Your task to perform on an android device: turn off notifications in google photos Image 0: 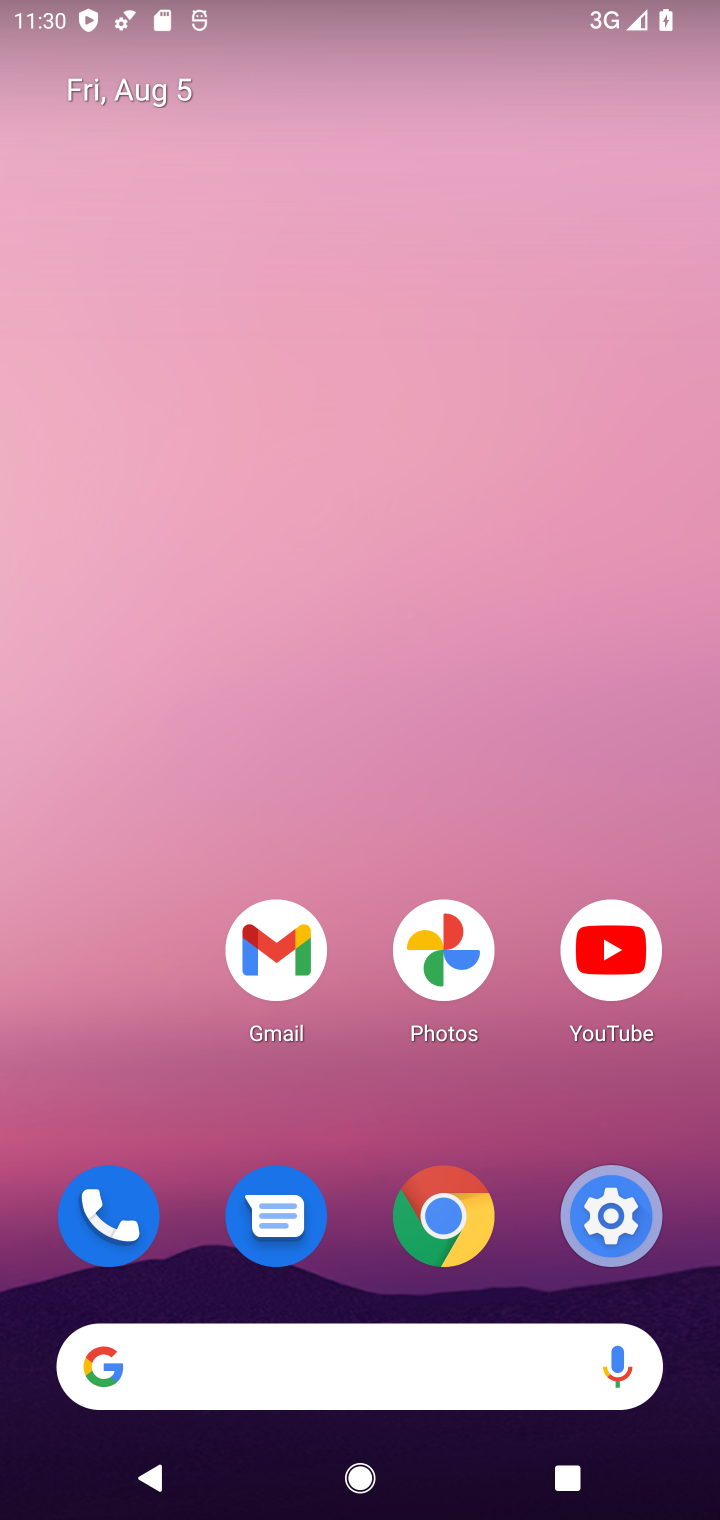
Step 0: drag from (508, 1388) to (483, 289)
Your task to perform on an android device: turn off notifications in google photos Image 1: 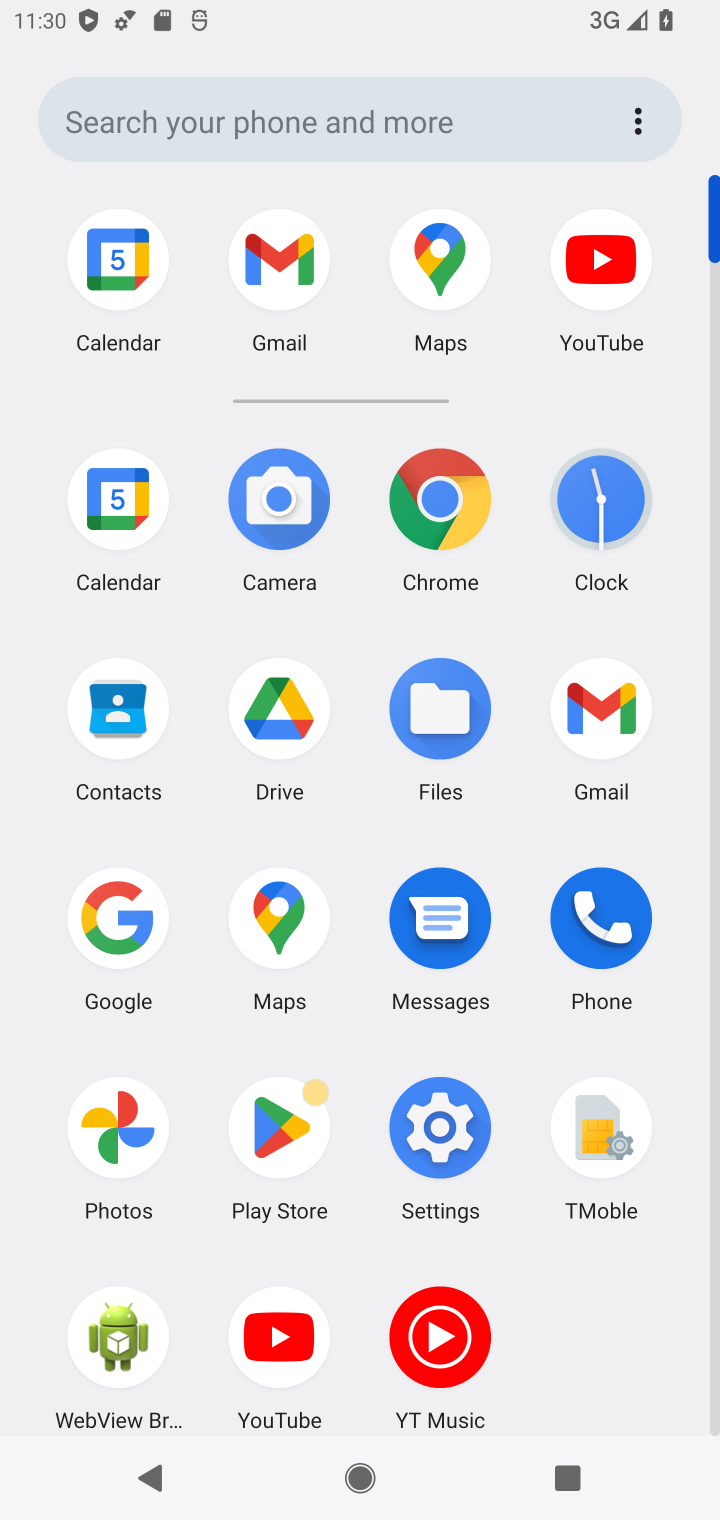
Step 1: click (107, 1127)
Your task to perform on an android device: turn off notifications in google photos Image 2: 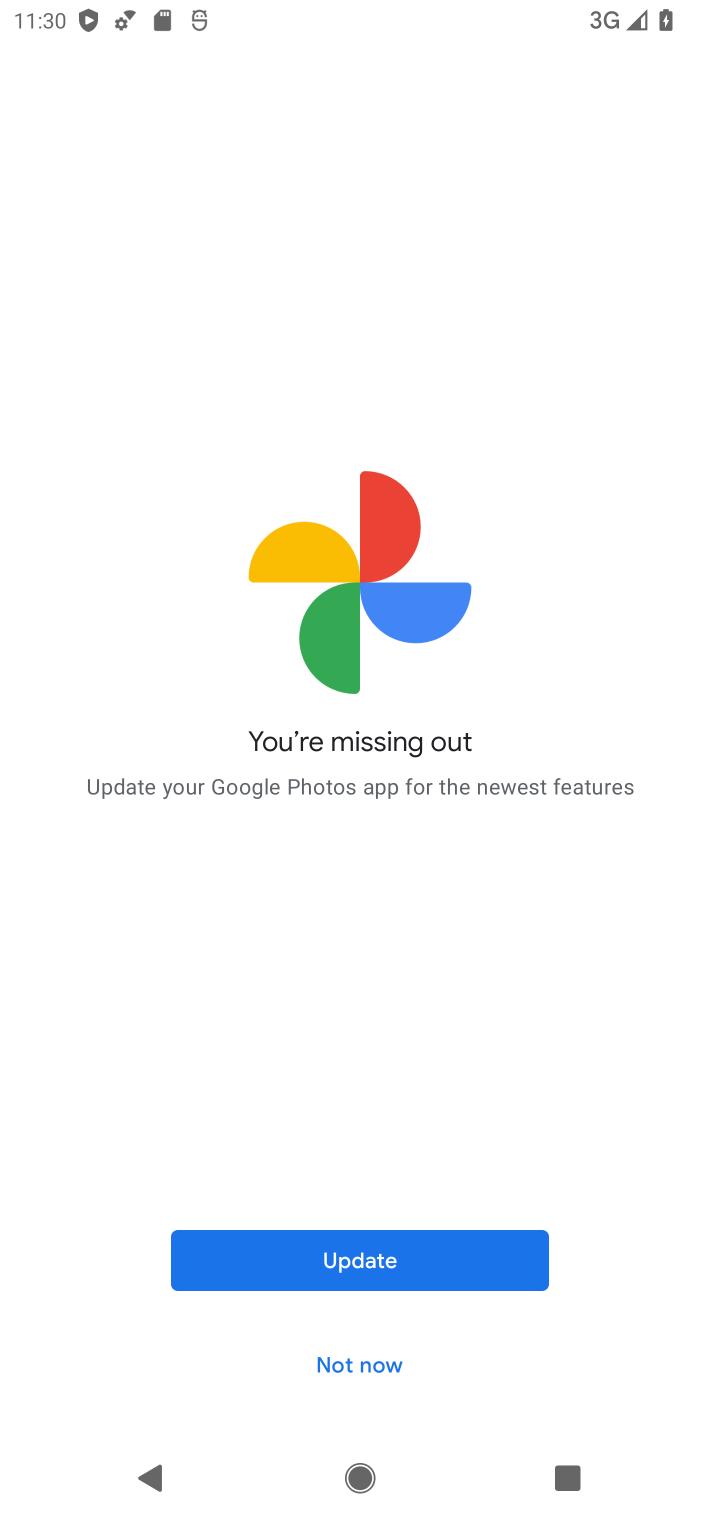
Step 2: click (107, 1127)
Your task to perform on an android device: turn off notifications in google photos Image 3: 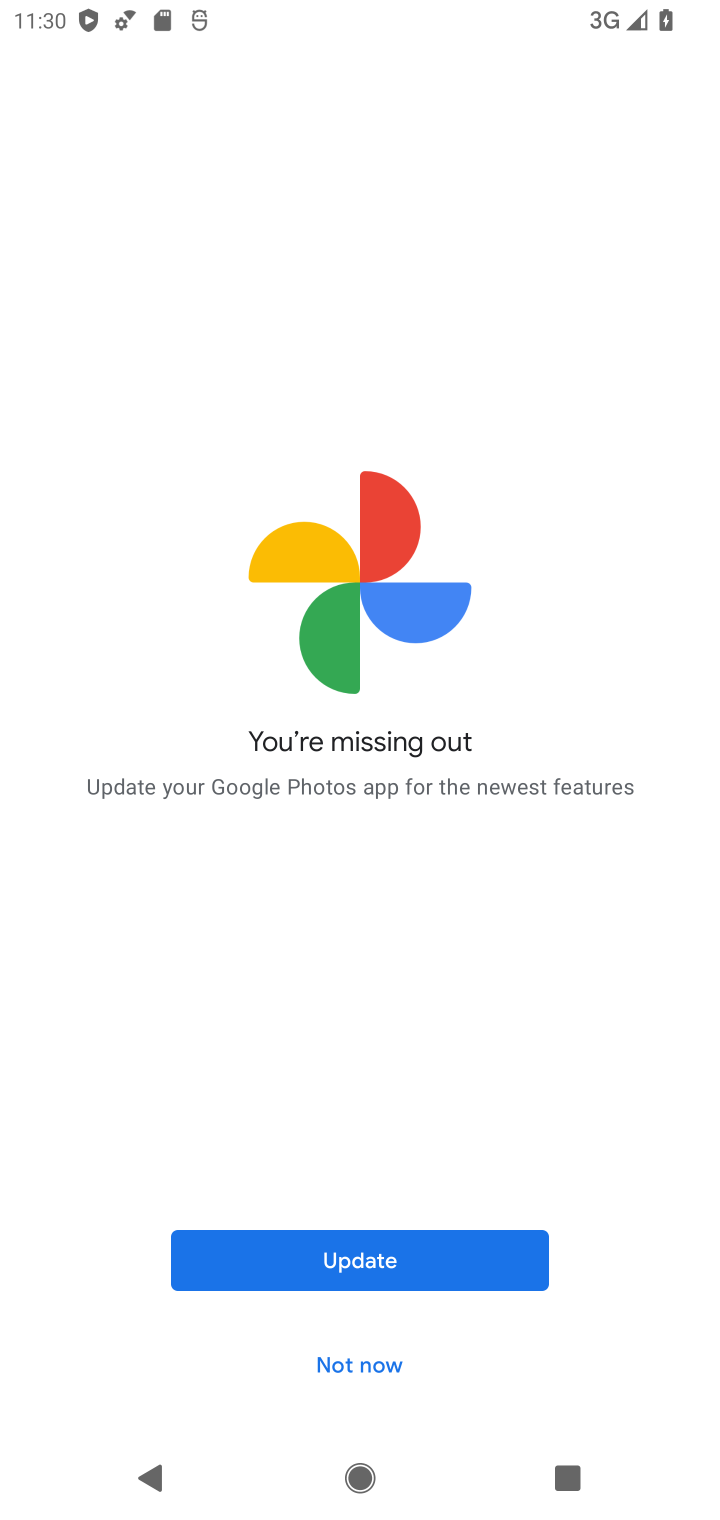
Step 3: click (382, 1262)
Your task to perform on an android device: turn off notifications in google photos Image 4: 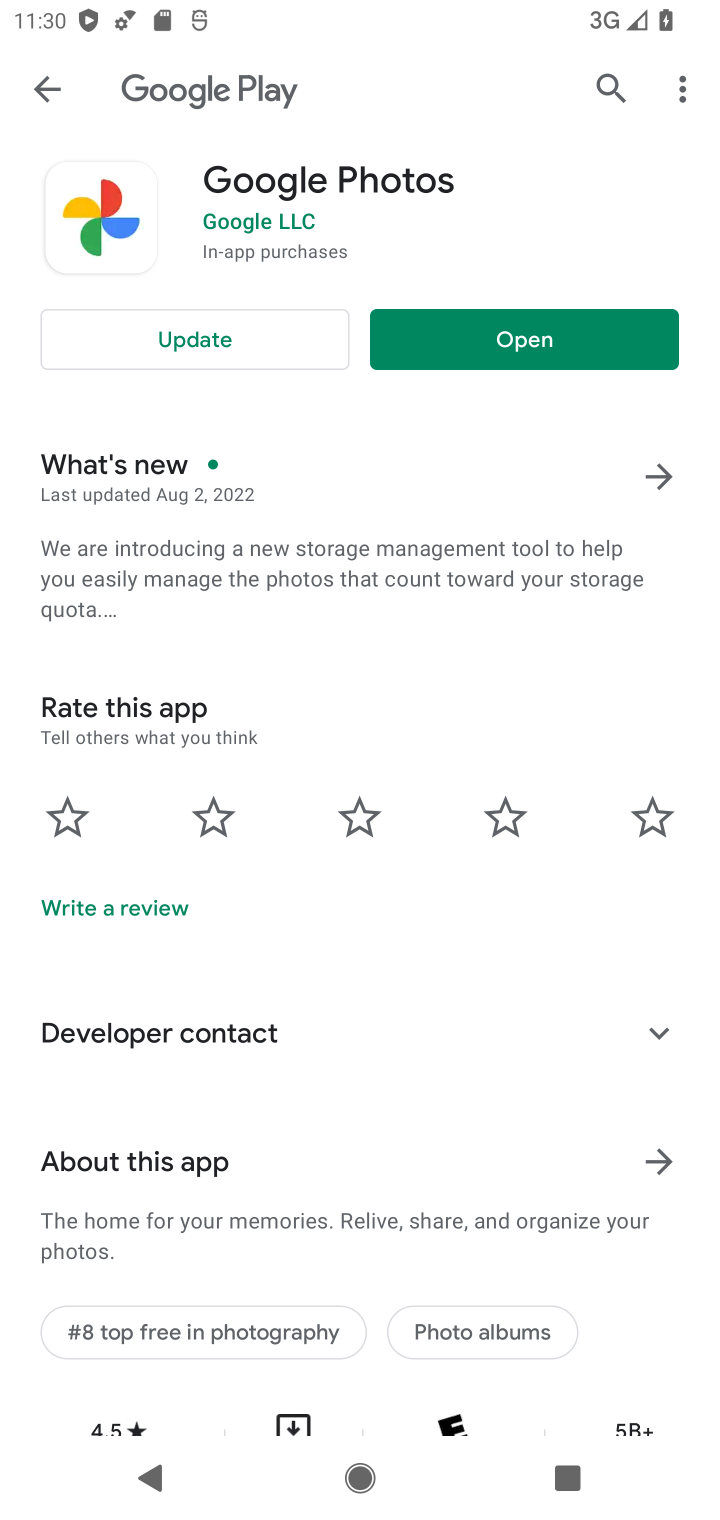
Step 4: click (190, 338)
Your task to perform on an android device: turn off notifications in google photos Image 5: 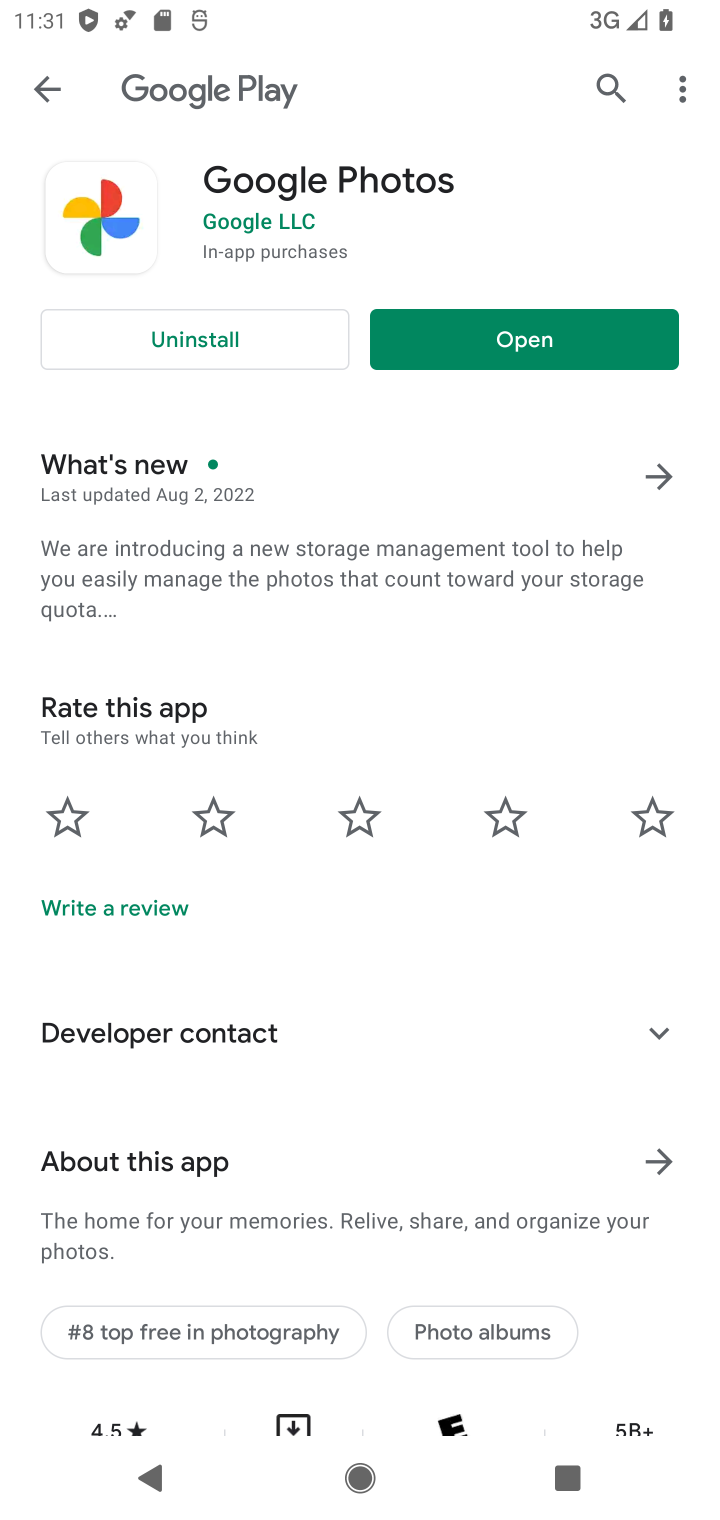
Step 5: click (461, 350)
Your task to perform on an android device: turn off notifications in google photos Image 6: 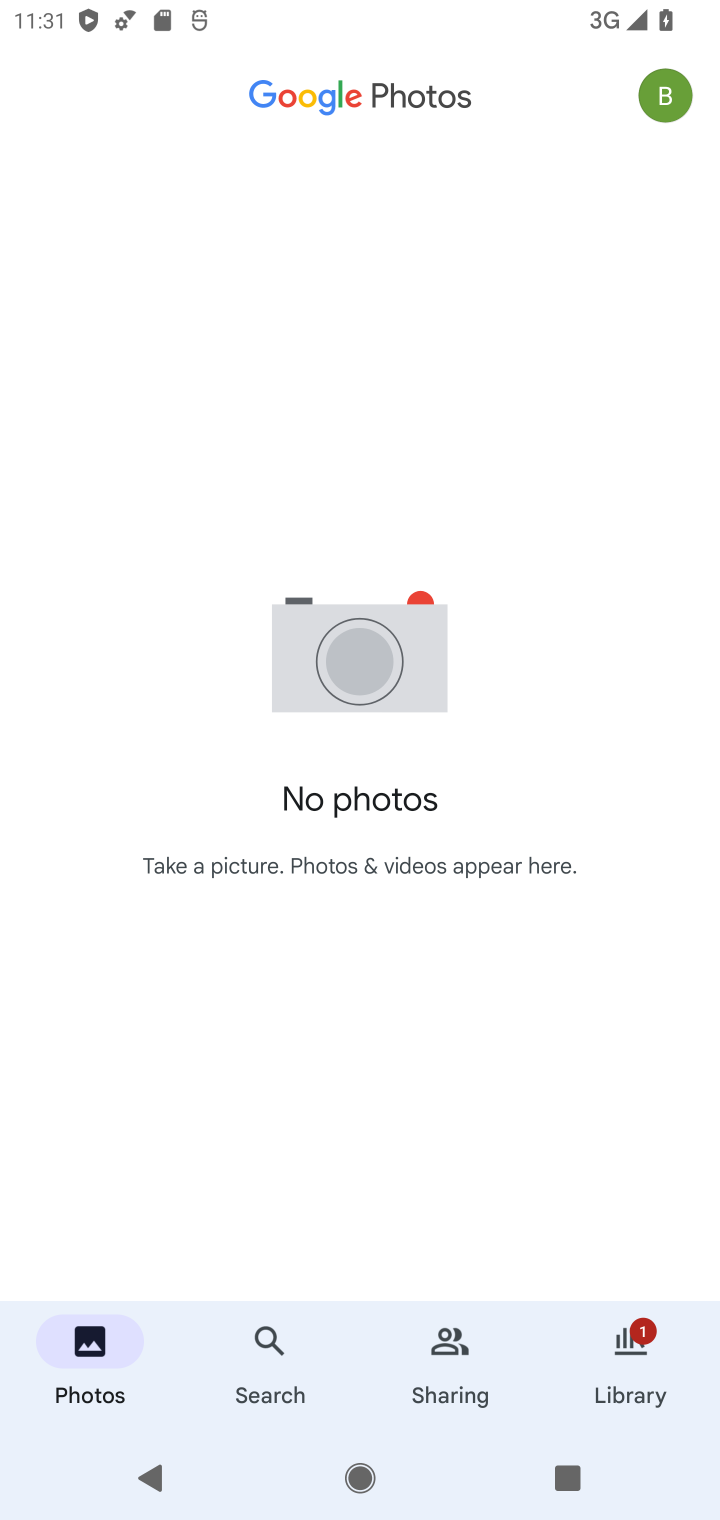
Step 6: click (652, 96)
Your task to perform on an android device: turn off notifications in google photos Image 7: 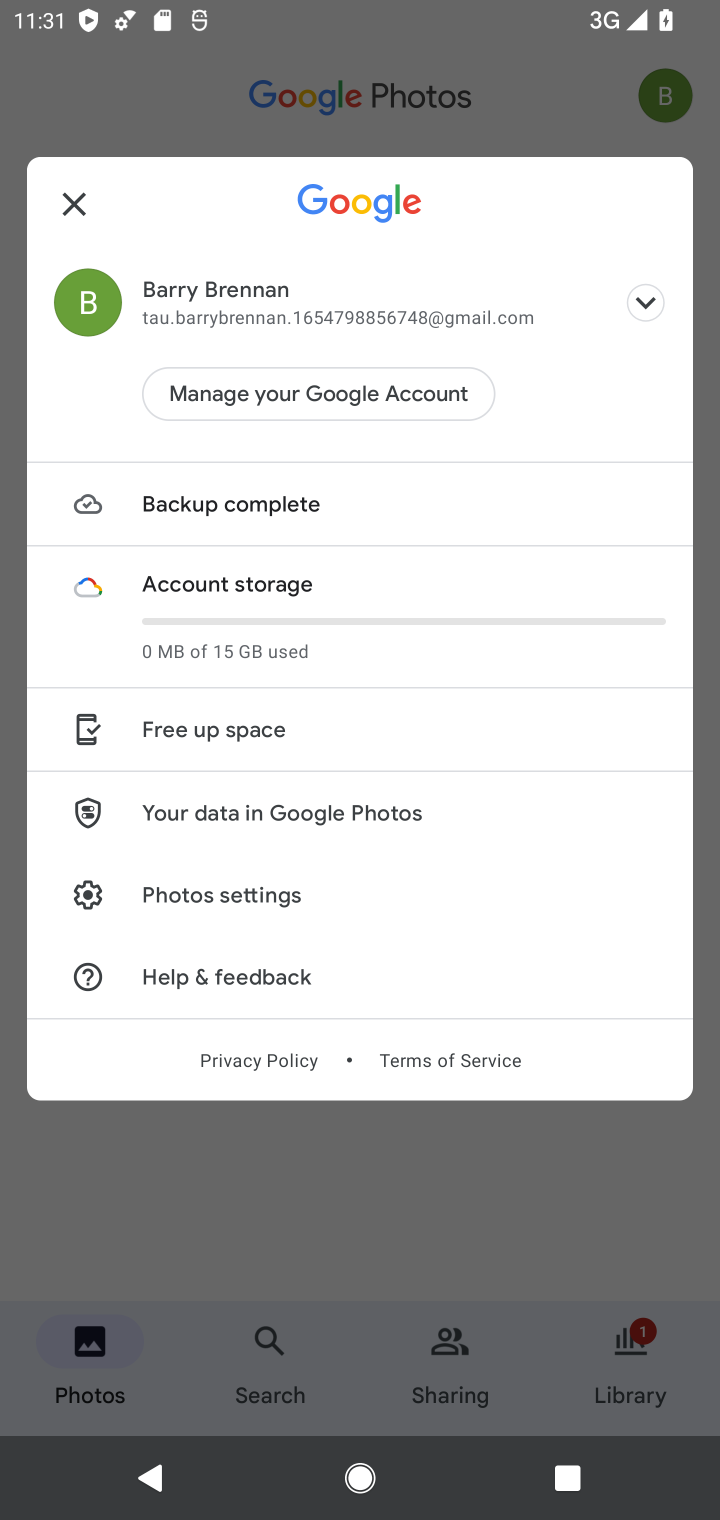
Step 7: click (267, 896)
Your task to perform on an android device: turn off notifications in google photos Image 8: 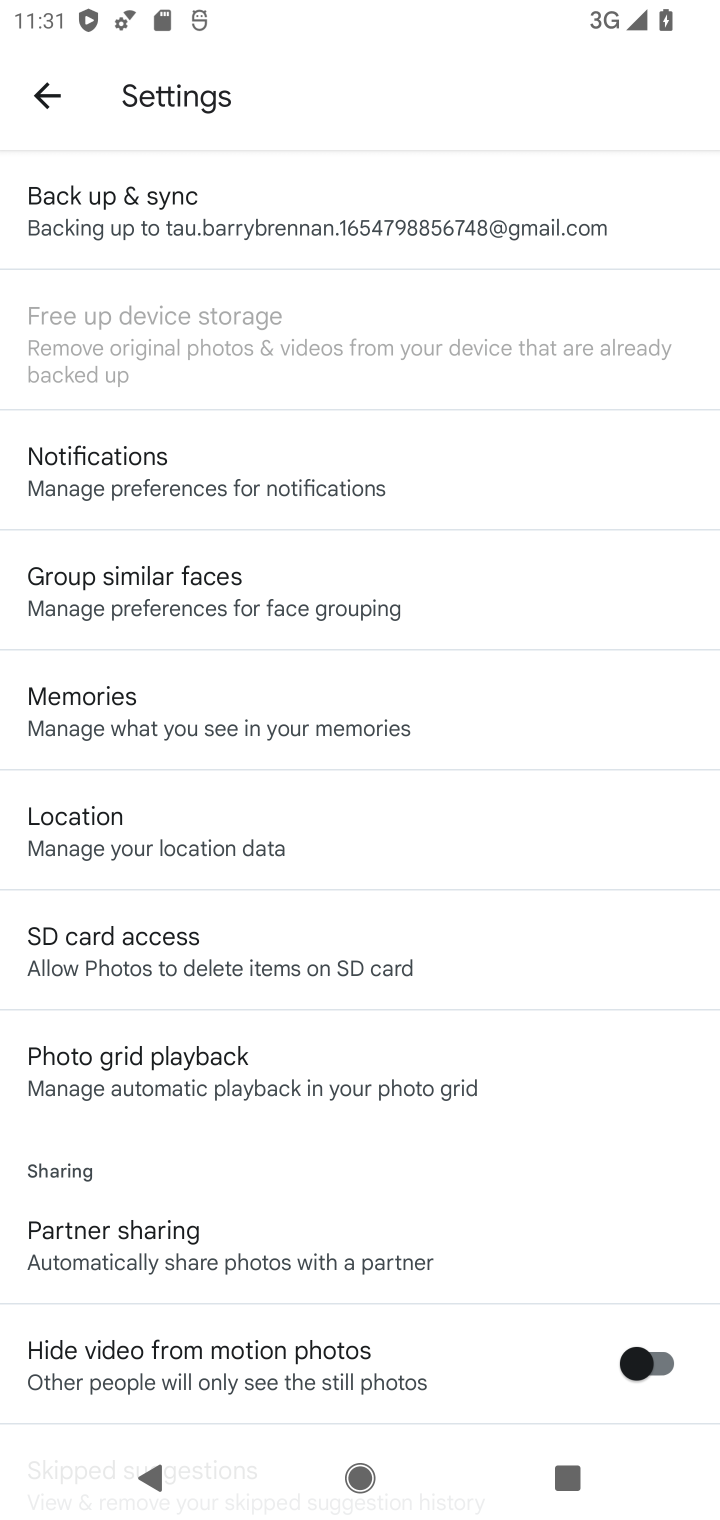
Step 8: click (245, 508)
Your task to perform on an android device: turn off notifications in google photos Image 9: 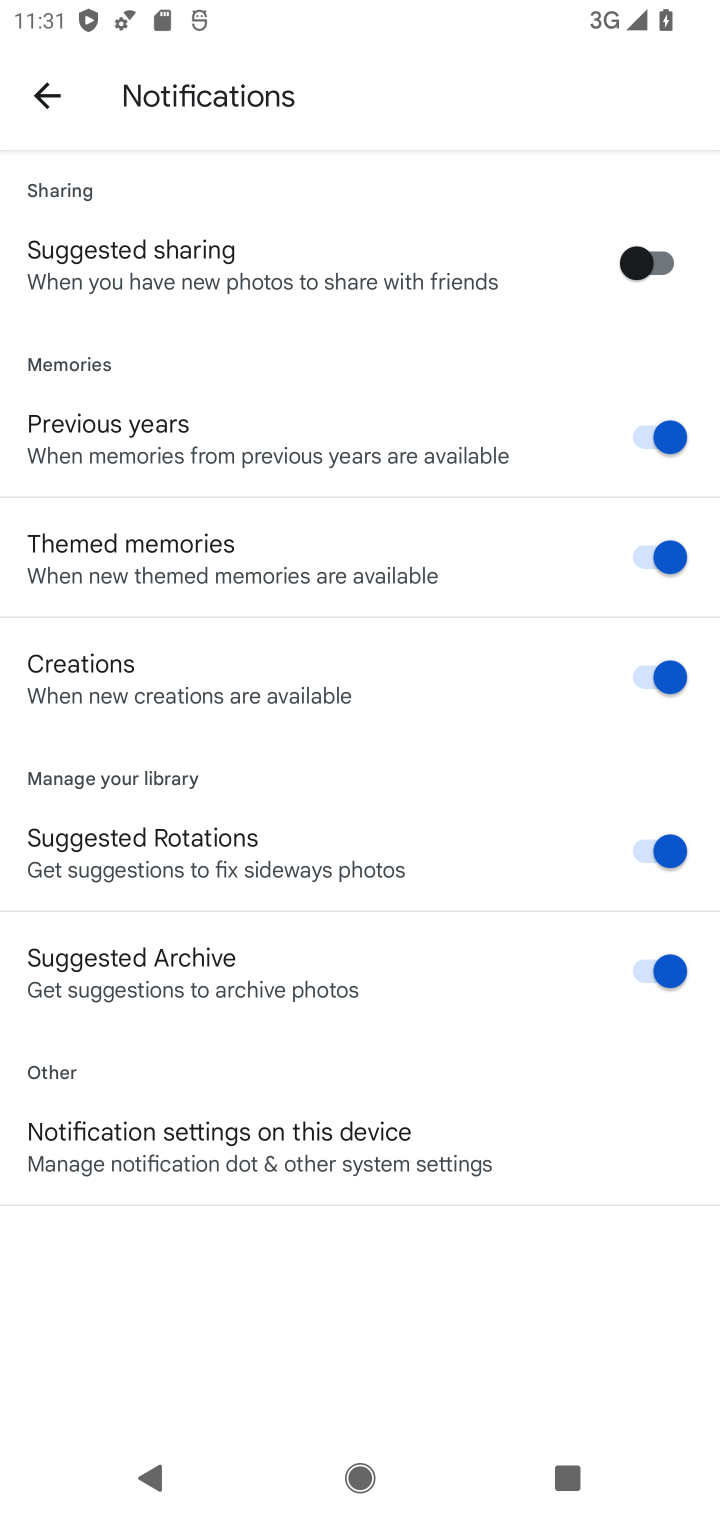
Step 9: click (304, 1154)
Your task to perform on an android device: turn off notifications in google photos Image 10: 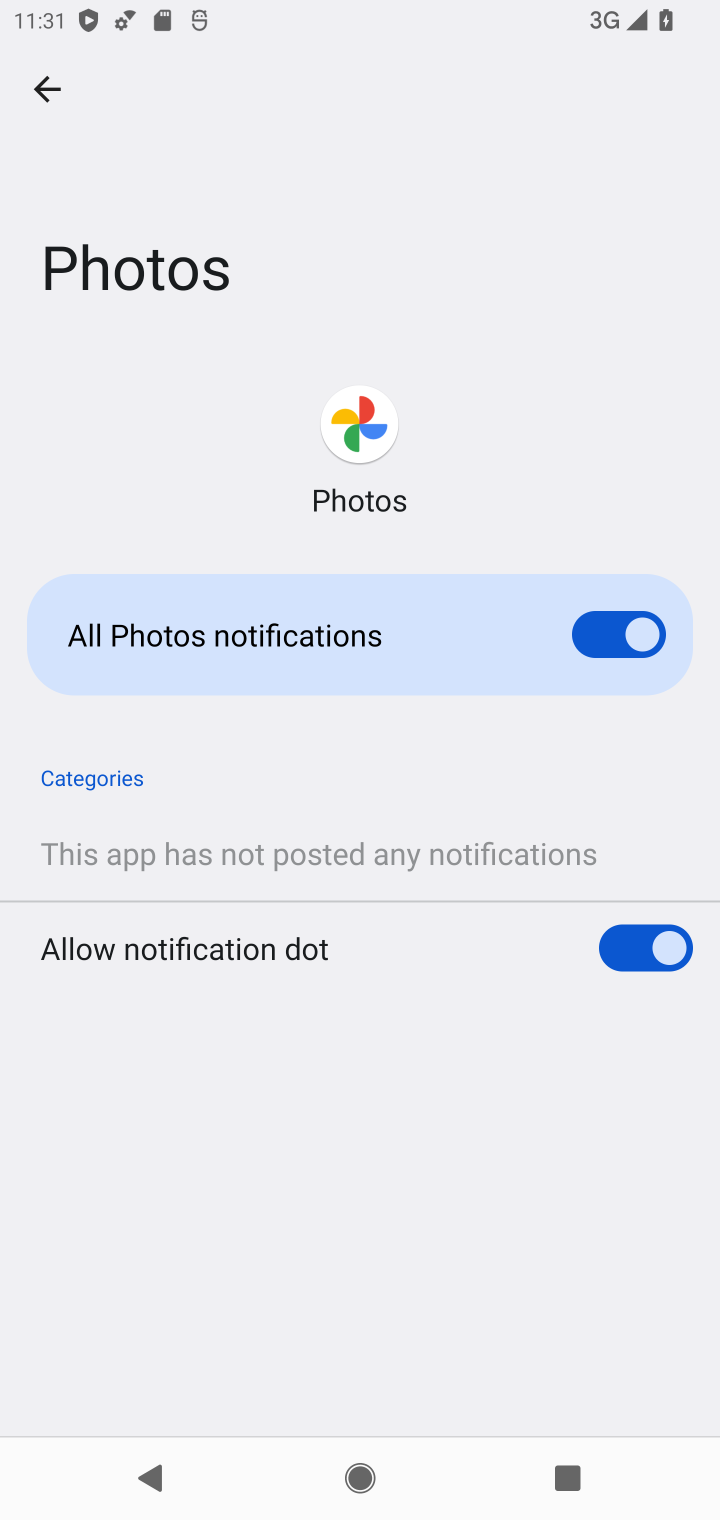
Step 10: click (609, 625)
Your task to perform on an android device: turn off notifications in google photos Image 11: 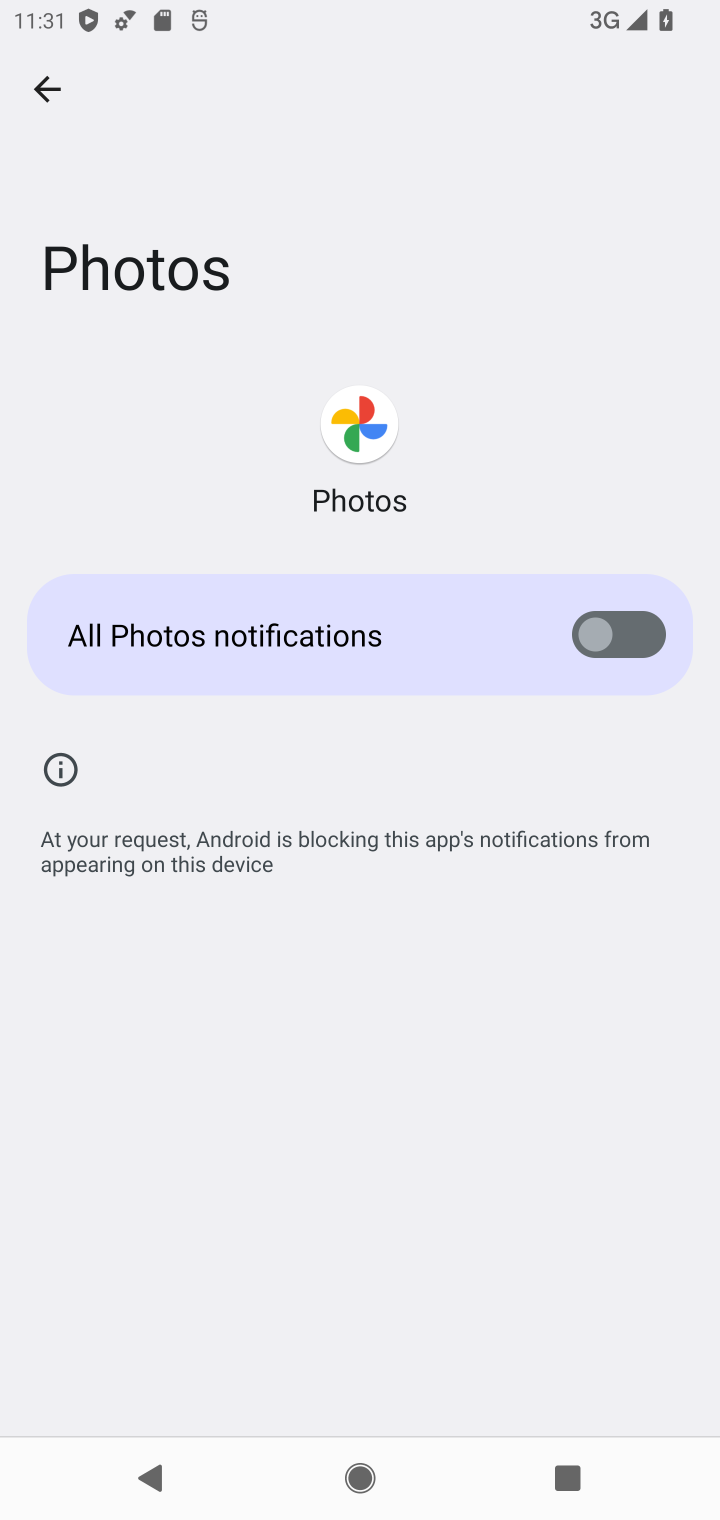
Step 11: task complete